Your task to perform on an android device: Open battery settings Image 0: 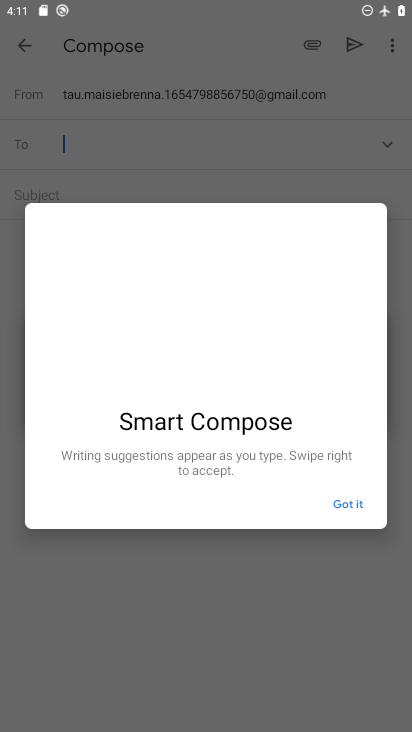
Step 0: press home button
Your task to perform on an android device: Open battery settings Image 1: 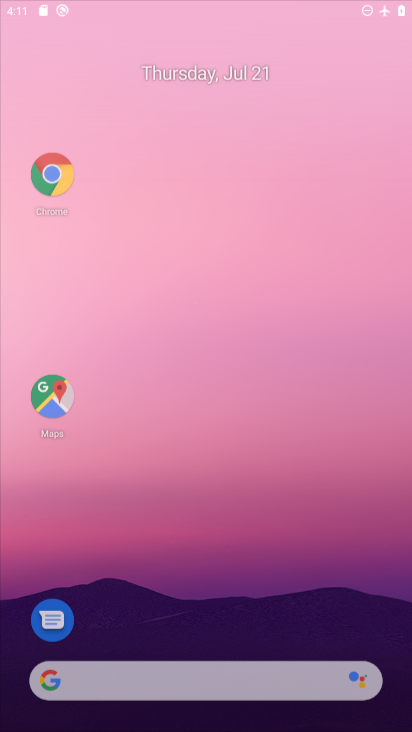
Step 1: click (357, 508)
Your task to perform on an android device: Open battery settings Image 2: 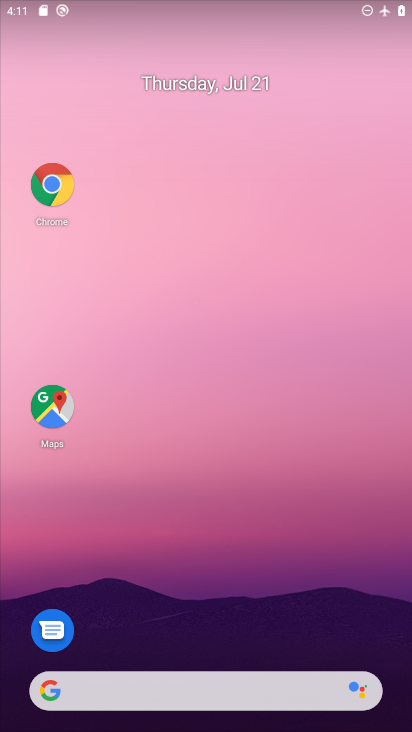
Step 2: drag from (194, 659) to (168, 25)
Your task to perform on an android device: Open battery settings Image 3: 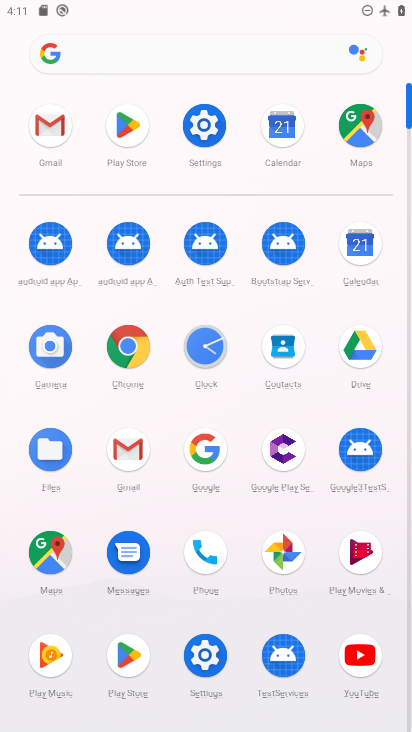
Step 3: click (209, 133)
Your task to perform on an android device: Open battery settings Image 4: 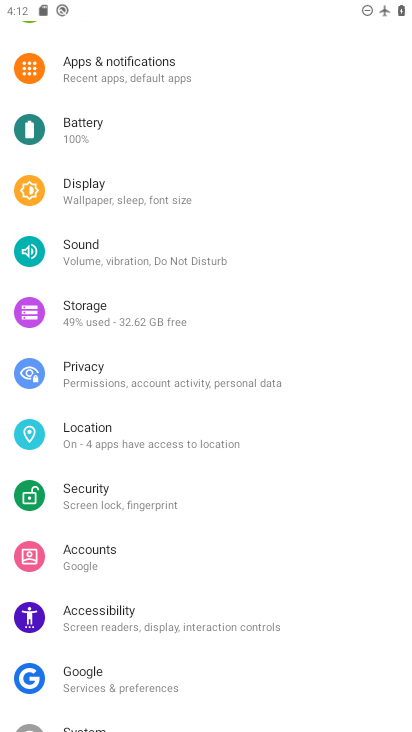
Step 4: click (85, 132)
Your task to perform on an android device: Open battery settings Image 5: 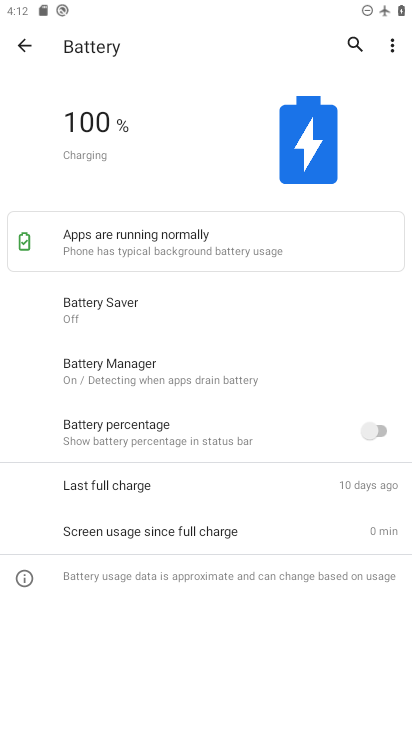
Step 5: task complete